Your task to perform on an android device: Toggle the flashlight Image 0: 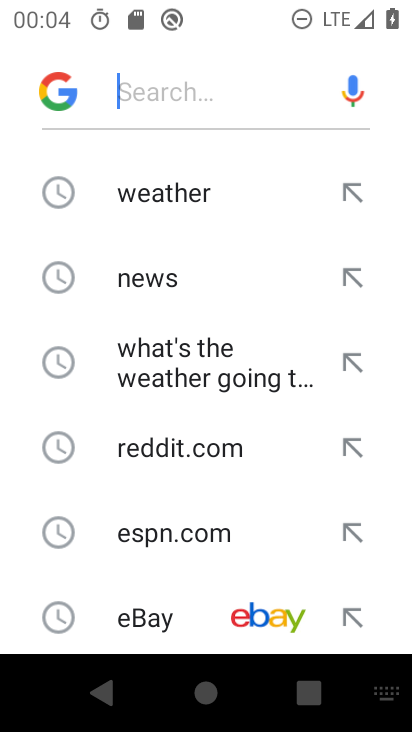
Step 0: press home button
Your task to perform on an android device: Toggle the flashlight Image 1: 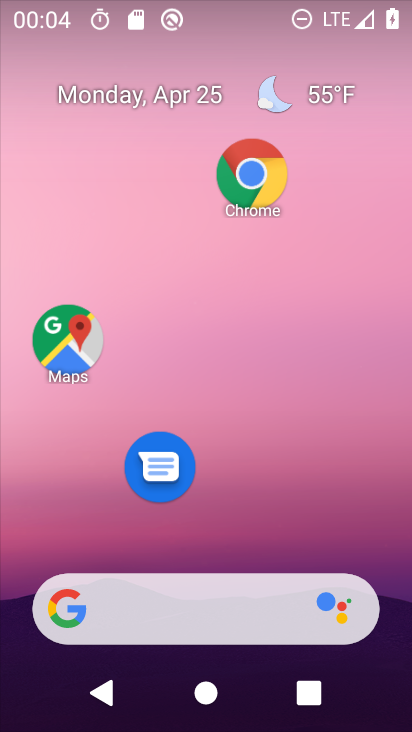
Step 1: drag from (212, 513) to (340, 22)
Your task to perform on an android device: Toggle the flashlight Image 2: 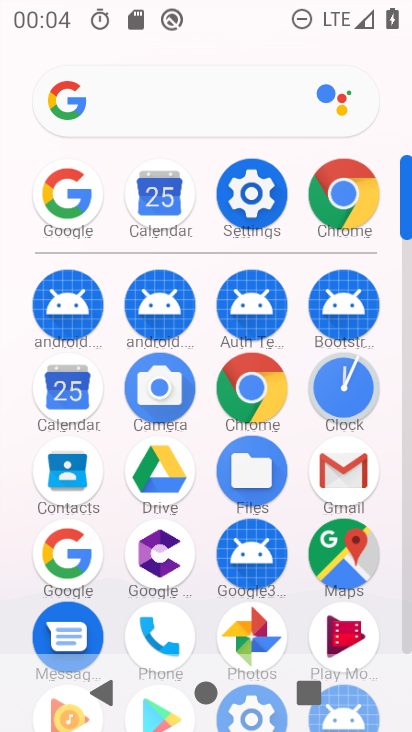
Step 2: click (249, 189)
Your task to perform on an android device: Toggle the flashlight Image 3: 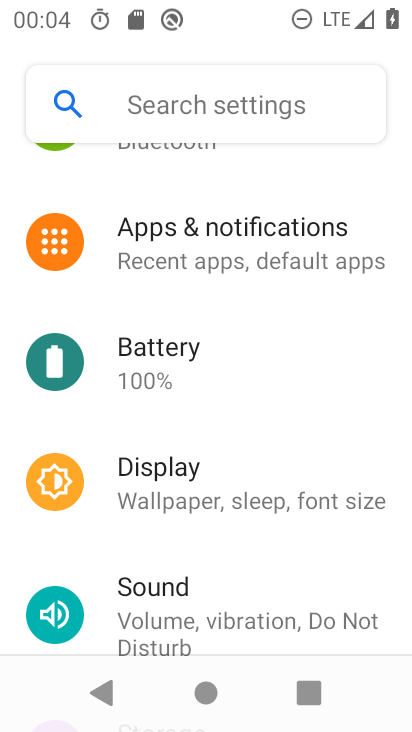
Step 3: click (189, 104)
Your task to perform on an android device: Toggle the flashlight Image 4: 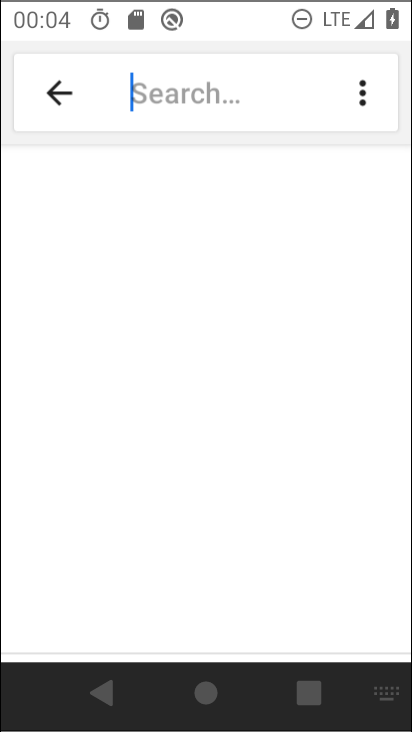
Step 4: type ""
Your task to perform on an android device: Toggle the flashlight Image 5: 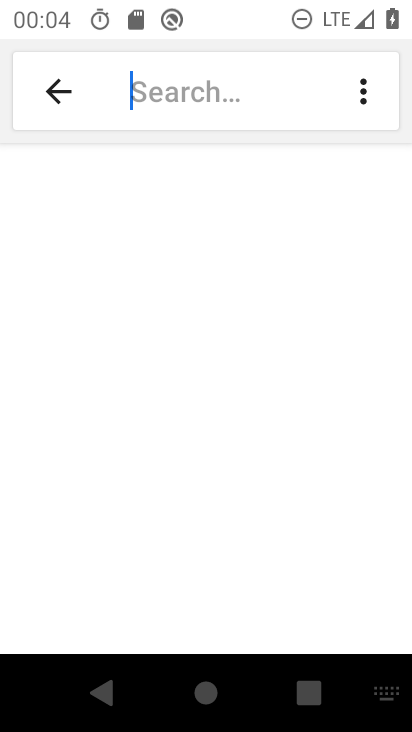
Step 5: type "Flashlight"
Your task to perform on an android device: Toggle the flashlight Image 6: 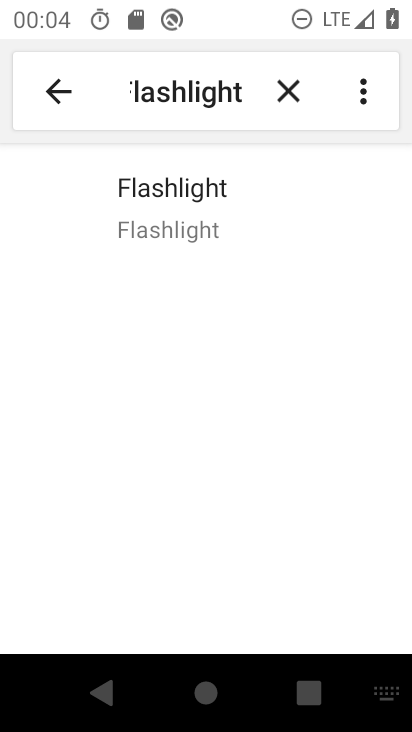
Step 6: task complete